Your task to perform on an android device: add a contact in the contacts app Image 0: 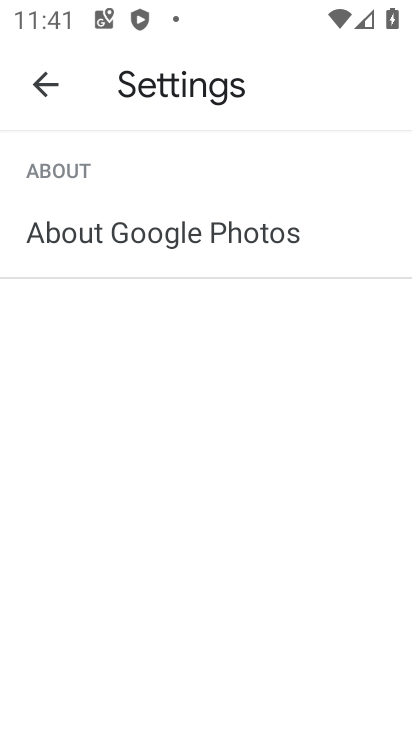
Step 0: press home button
Your task to perform on an android device: add a contact in the contacts app Image 1: 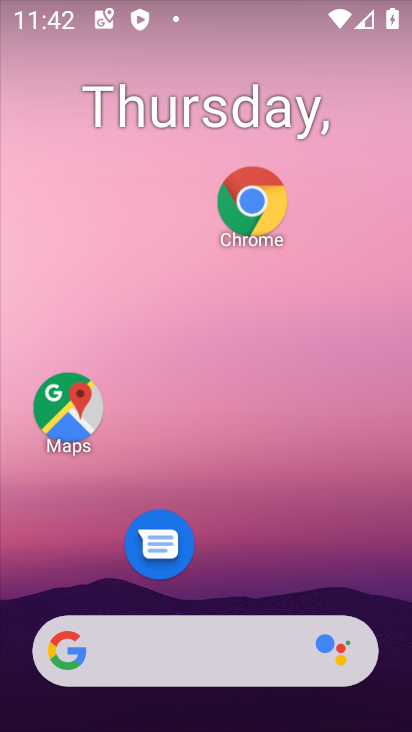
Step 1: drag from (211, 589) to (191, 92)
Your task to perform on an android device: add a contact in the contacts app Image 2: 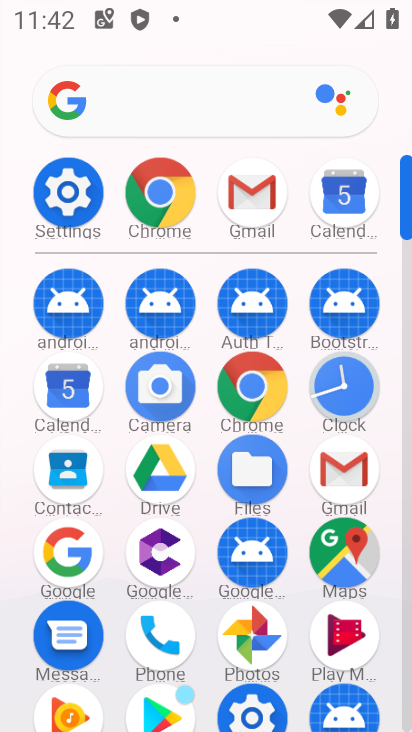
Step 2: click (66, 464)
Your task to perform on an android device: add a contact in the contacts app Image 3: 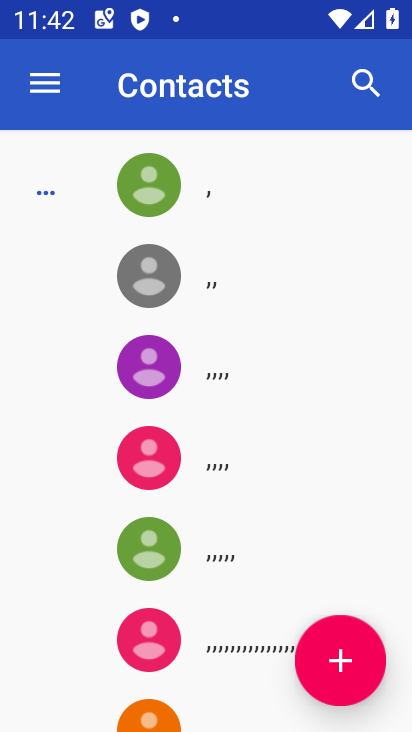
Step 3: click (337, 658)
Your task to perform on an android device: add a contact in the contacts app Image 4: 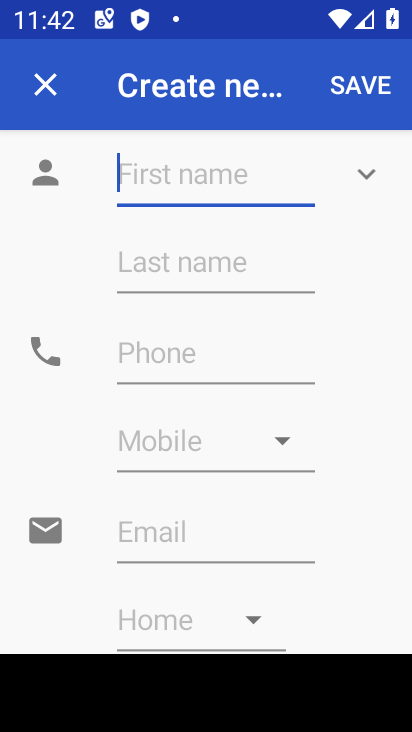
Step 4: type "nhvhg"
Your task to perform on an android device: add a contact in the contacts app Image 5: 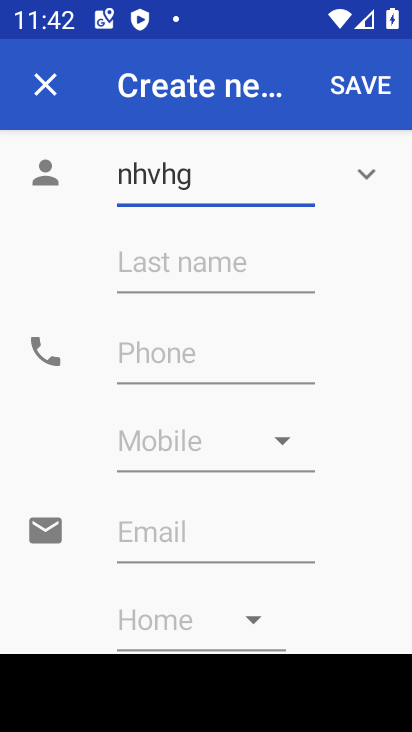
Step 5: click (357, 84)
Your task to perform on an android device: add a contact in the contacts app Image 6: 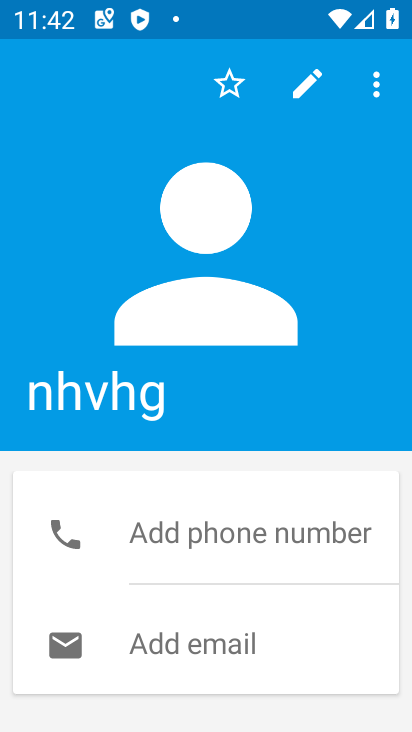
Step 6: task complete